Your task to perform on an android device: add a contact Image 0: 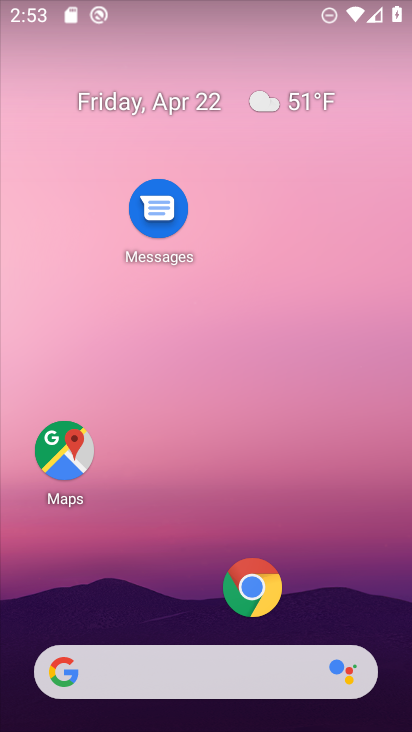
Step 0: drag from (194, 617) to (219, 192)
Your task to perform on an android device: add a contact Image 1: 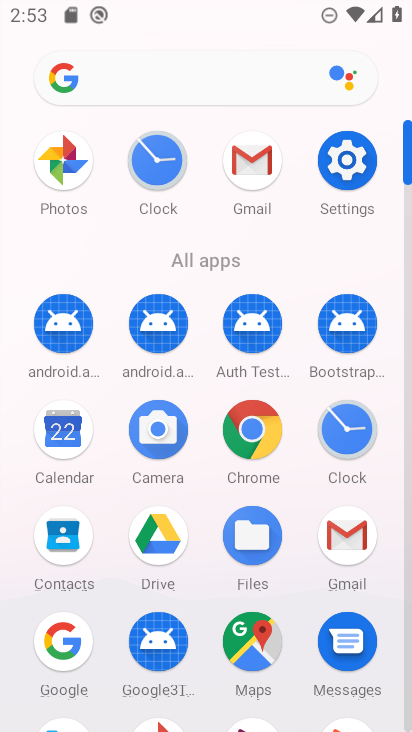
Step 1: click (70, 547)
Your task to perform on an android device: add a contact Image 2: 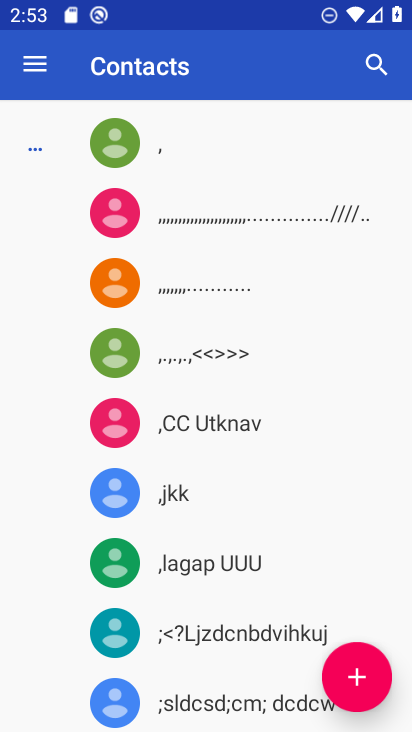
Step 2: click (356, 663)
Your task to perform on an android device: add a contact Image 3: 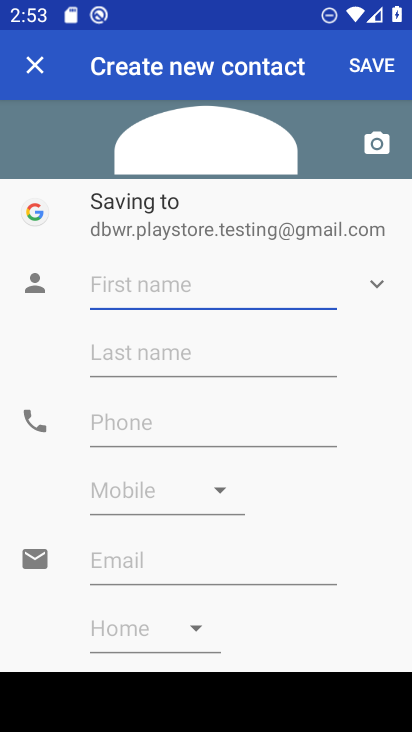
Step 3: type "fbf"
Your task to perform on an android device: add a contact Image 4: 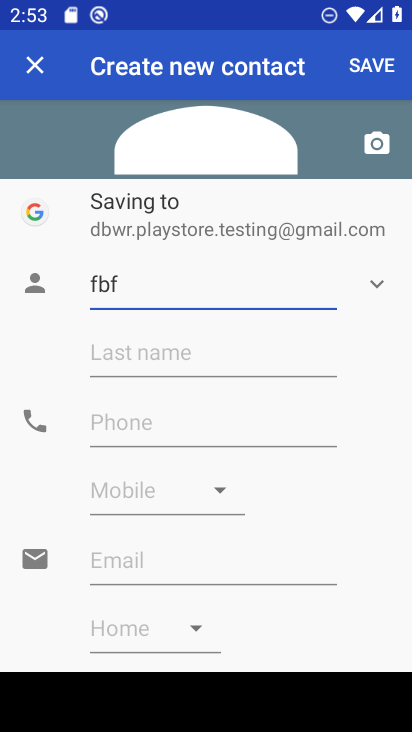
Step 4: click (196, 423)
Your task to perform on an android device: add a contact Image 5: 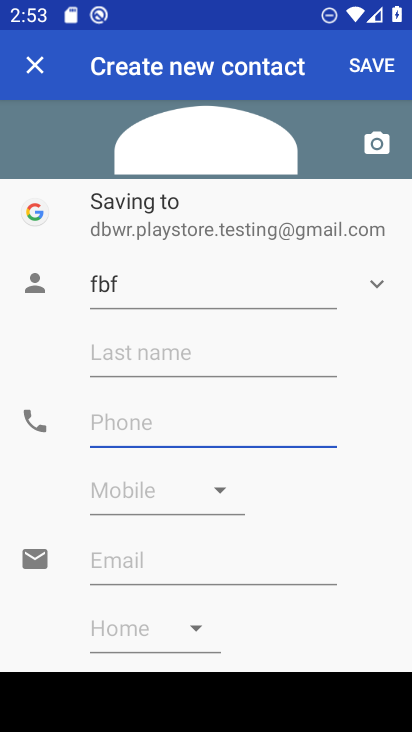
Step 5: type "856868686"
Your task to perform on an android device: add a contact Image 6: 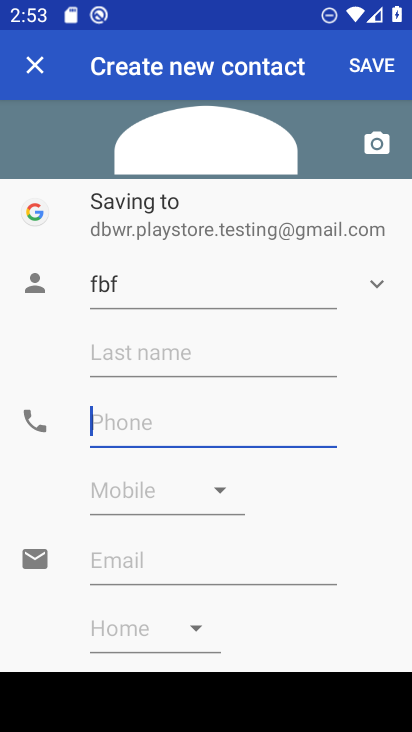
Step 6: click (364, 74)
Your task to perform on an android device: add a contact Image 7: 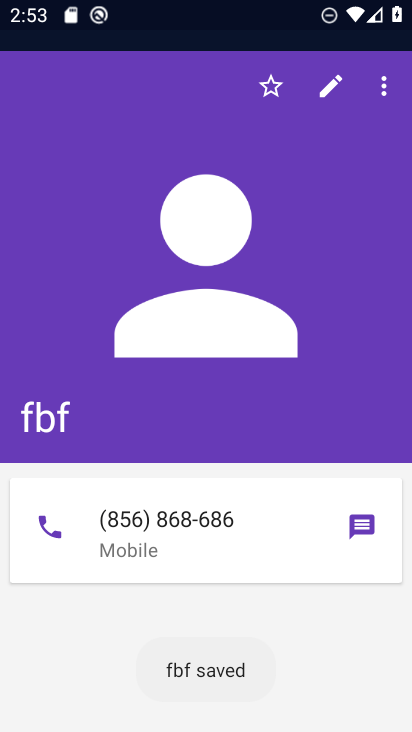
Step 7: task complete